Your task to perform on an android device: turn on showing notifications on the lock screen Image 0: 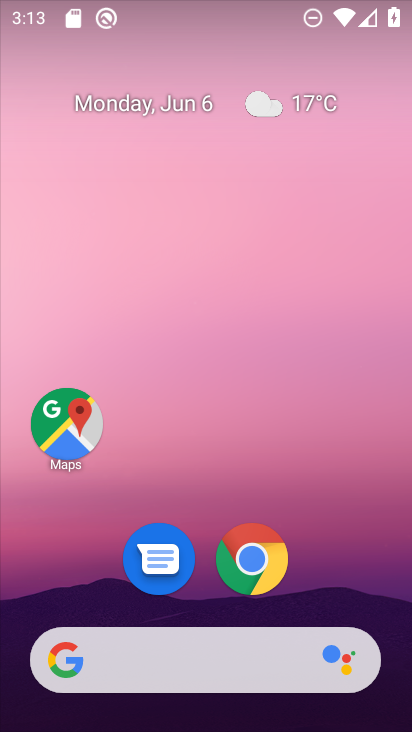
Step 0: drag from (366, 603) to (302, 270)
Your task to perform on an android device: turn on showing notifications on the lock screen Image 1: 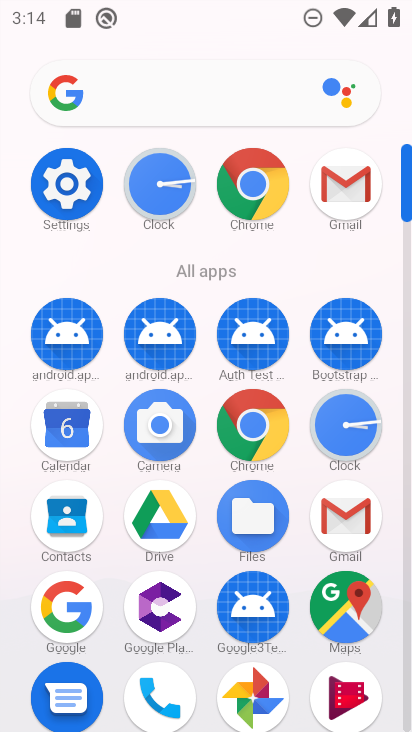
Step 1: click (63, 182)
Your task to perform on an android device: turn on showing notifications on the lock screen Image 2: 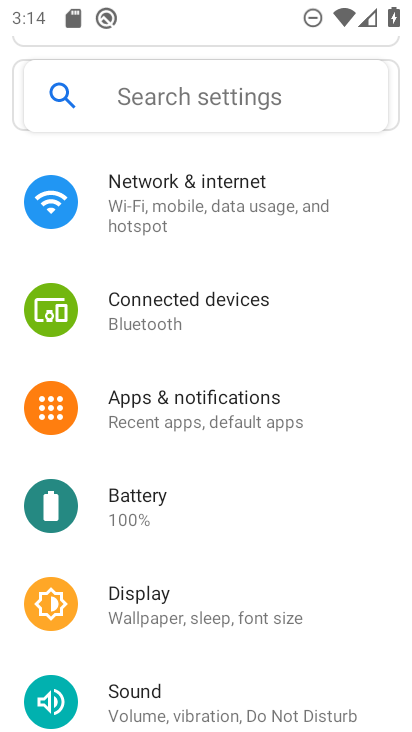
Step 2: click (251, 400)
Your task to perform on an android device: turn on showing notifications on the lock screen Image 3: 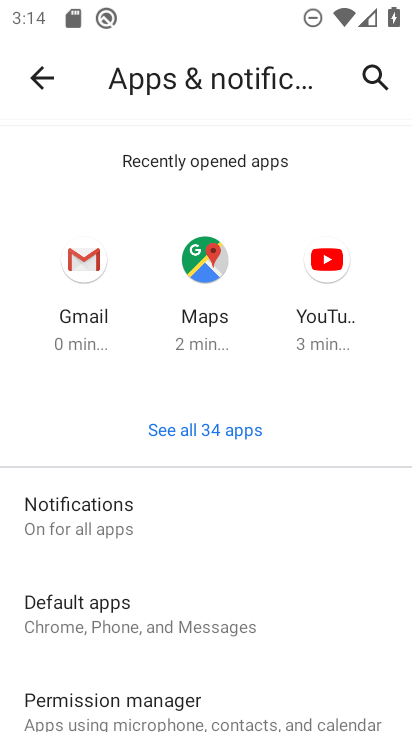
Step 3: click (209, 506)
Your task to perform on an android device: turn on showing notifications on the lock screen Image 4: 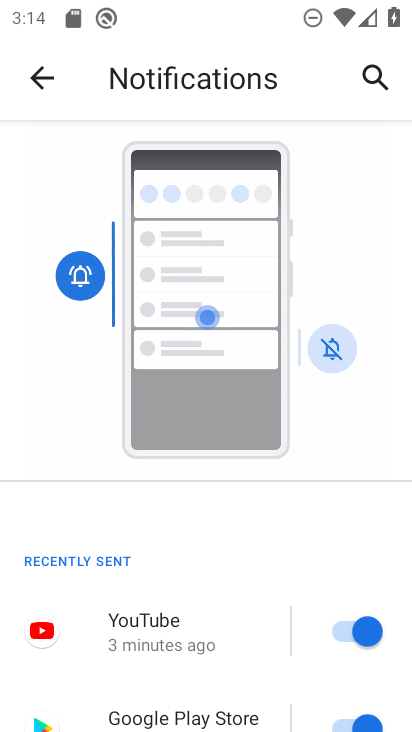
Step 4: drag from (277, 691) to (246, 510)
Your task to perform on an android device: turn on showing notifications on the lock screen Image 5: 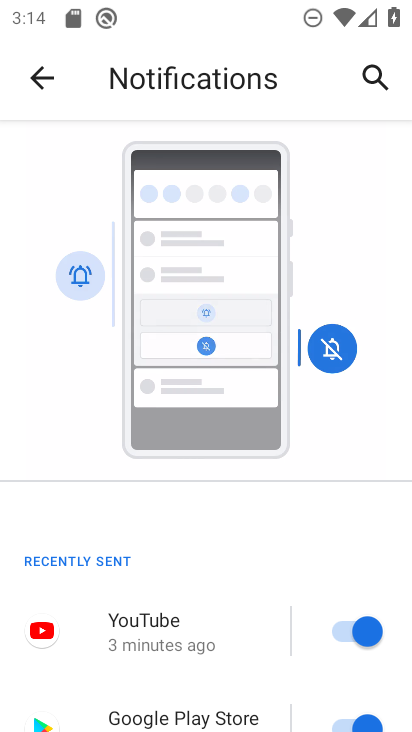
Step 5: drag from (264, 517) to (243, 147)
Your task to perform on an android device: turn on showing notifications on the lock screen Image 6: 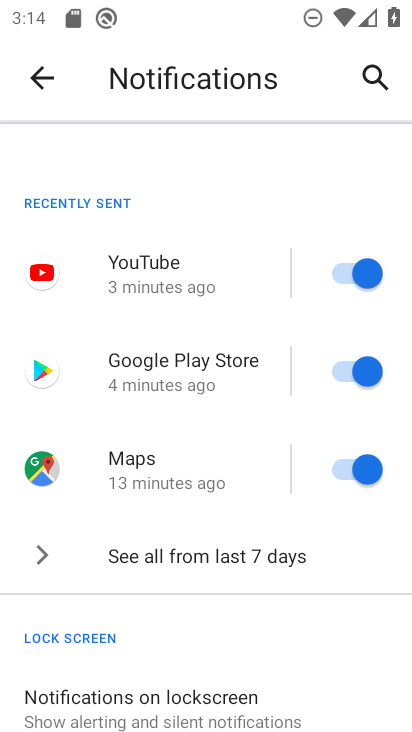
Step 6: click (334, 669)
Your task to perform on an android device: turn on showing notifications on the lock screen Image 7: 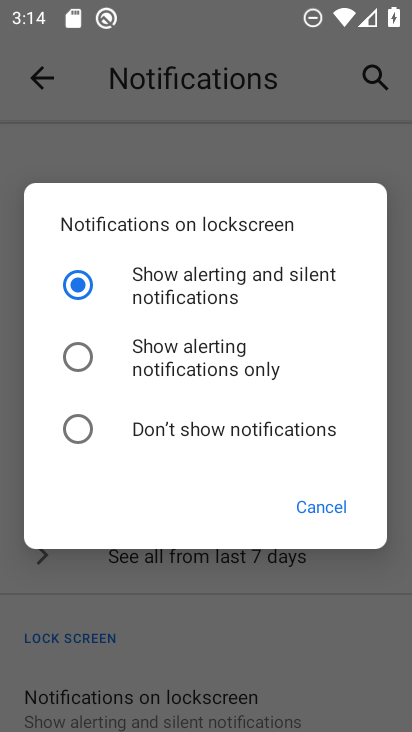
Step 7: task complete